Your task to perform on an android device: turn on javascript in the chrome app Image 0: 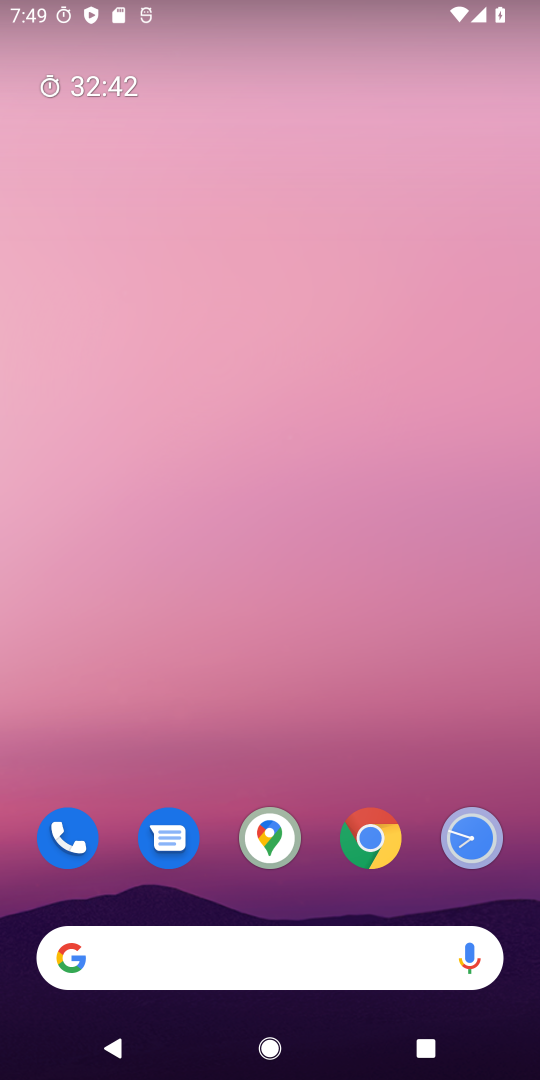
Step 0: drag from (272, 828) to (179, 130)
Your task to perform on an android device: turn on javascript in the chrome app Image 1: 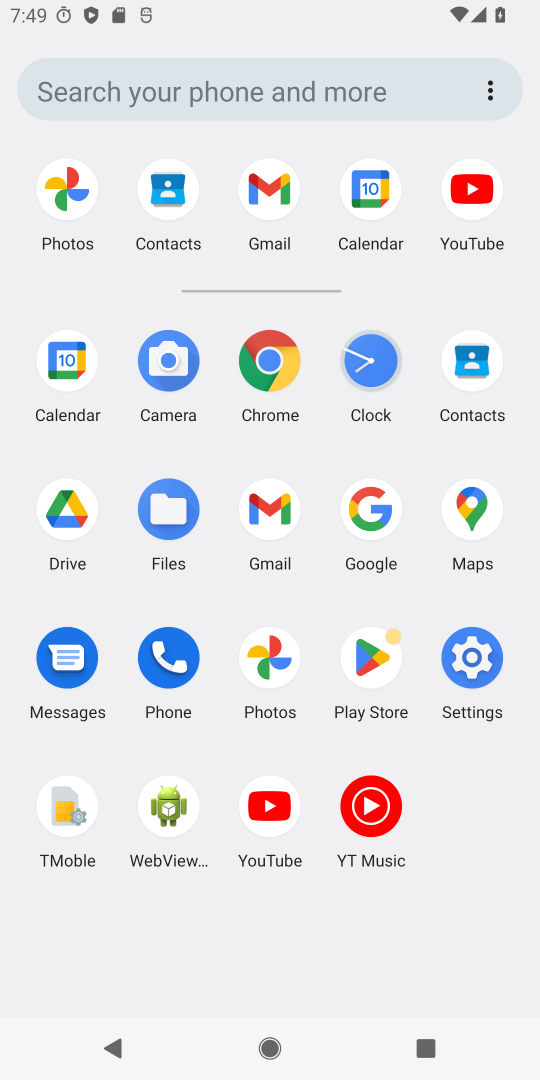
Step 1: click (283, 401)
Your task to perform on an android device: turn on javascript in the chrome app Image 2: 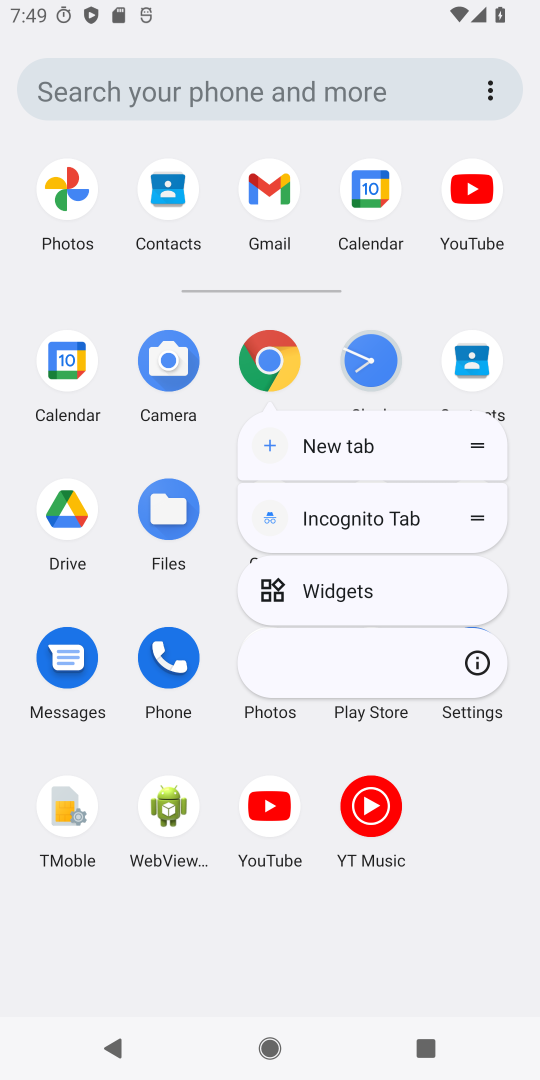
Step 2: click (283, 401)
Your task to perform on an android device: turn on javascript in the chrome app Image 3: 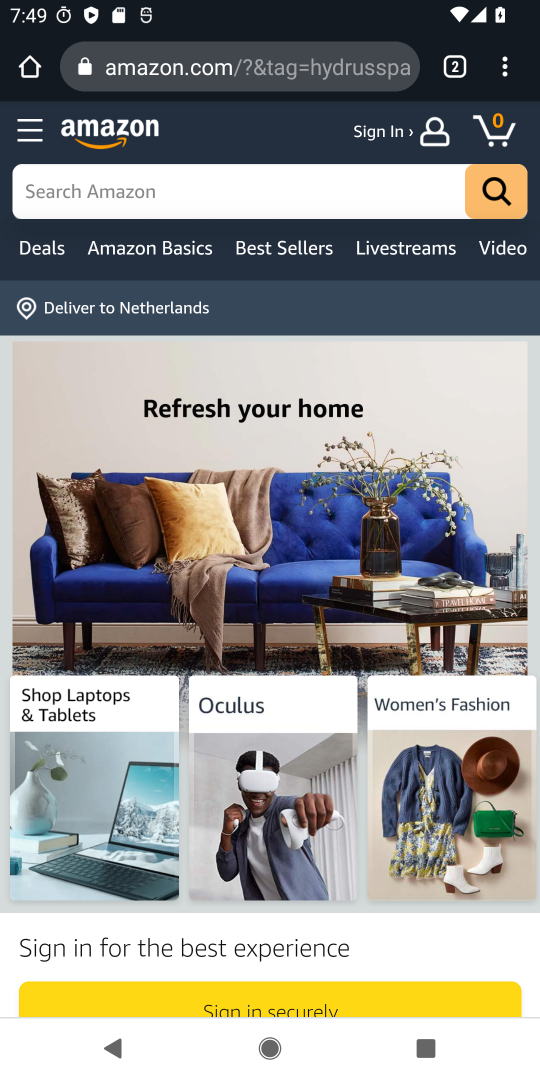
Step 3: task complete